Your task to perform on an android device: uninstall "Gboard" Image 0: 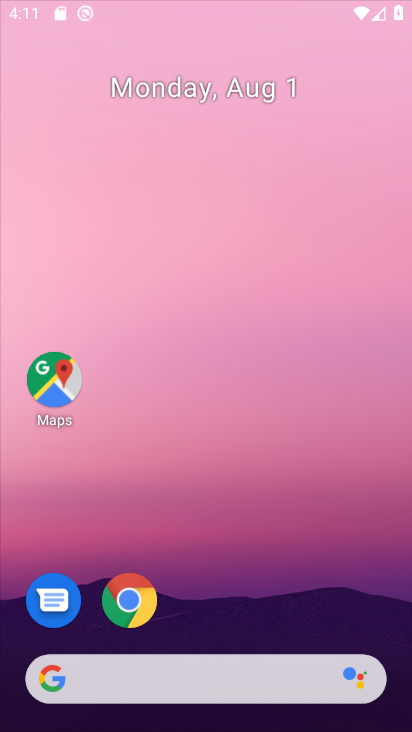
Step 0: drag from (294, 554) to (215, 6)
Your task to perform on an android device: uninstall "Gboard" Image 1: 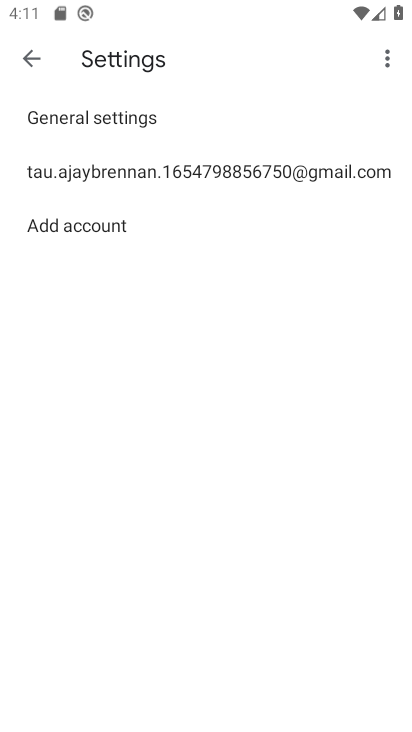
Step 1: press home button
Your task to perform on an android device: uninstall "Gboard" Image 2: 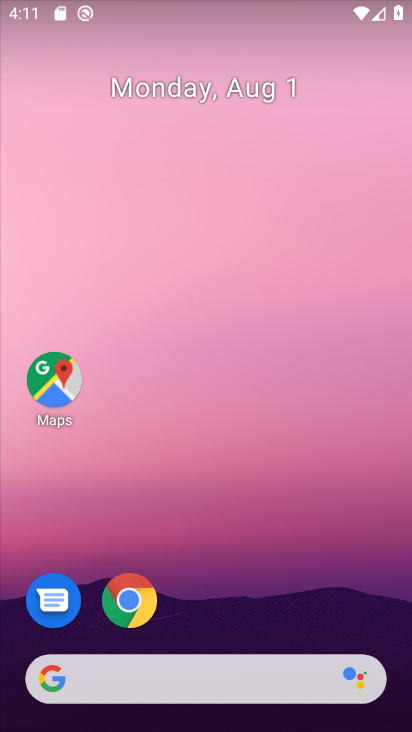
Step 2: drag from (262, 556) to (268, 74)
Your task to perform on an android device: uninstall "Gboard" Image 3: 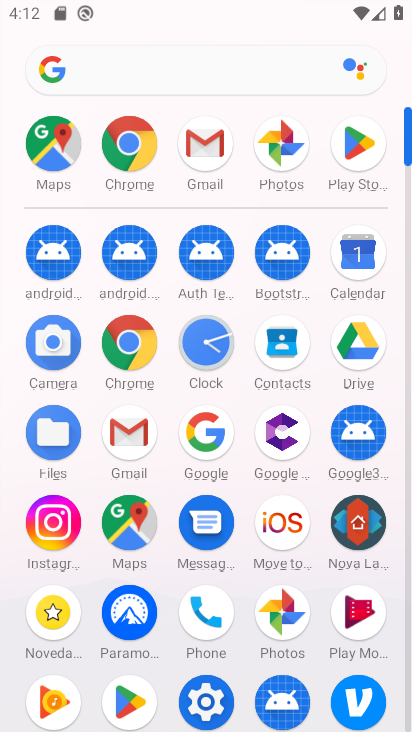
Step 3: click (129, 695)
Your task to perform on an android device: uninstall "Gboard" Image 4: 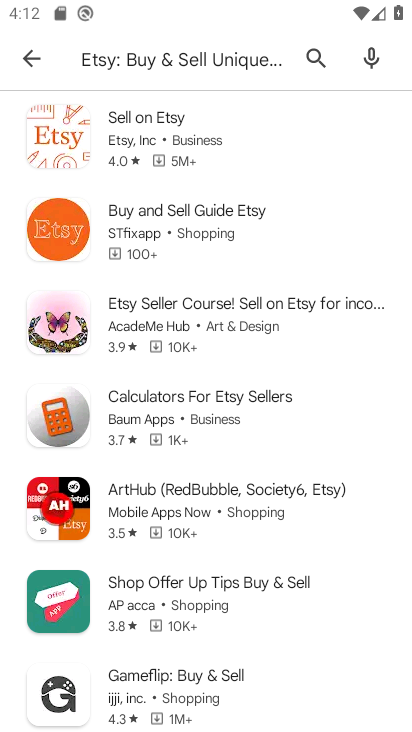
Step 4: click (252, 70)
Your task to perform on an android device: uninstall "Gboard" Image 5: 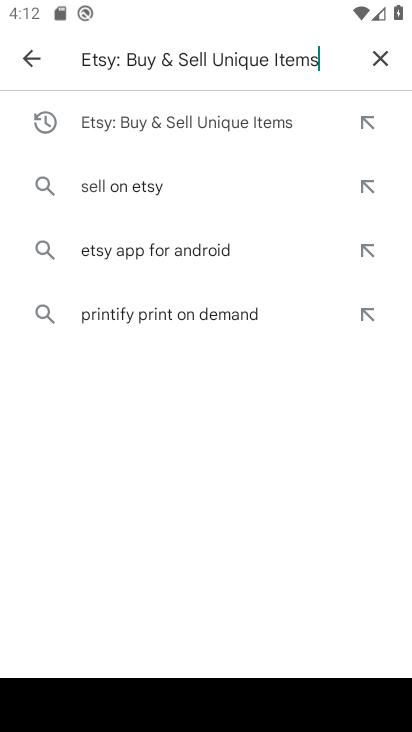
Step 5: click (393, 61)
Your task to perform on an android device: uninstall "Gboard" Image 6: 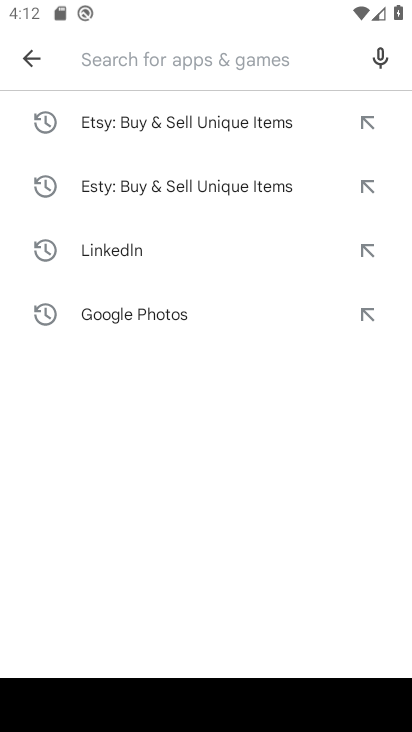
Step 6: type "Gboard"
Your task to perform on an android device: uninstall "Gboard" Image 7: 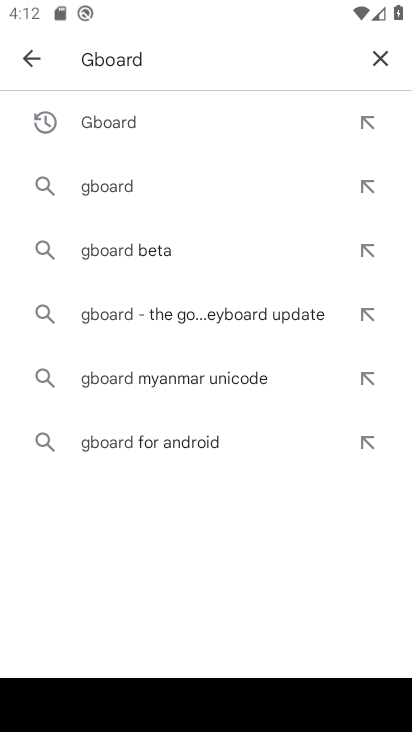
Step 7: press enter
Your task to perform on an android device: uninstall "Gboard" Image 8: 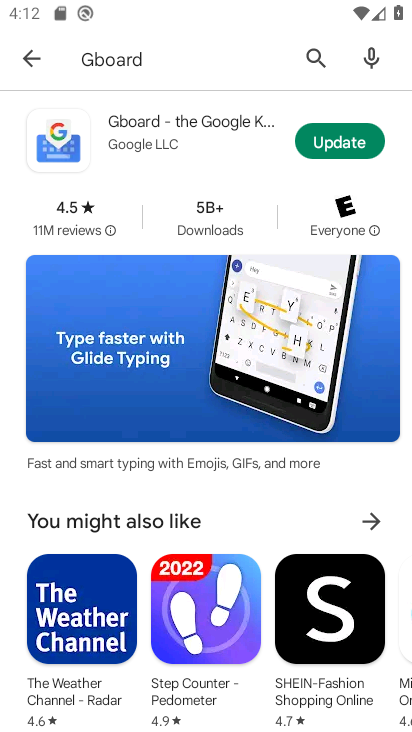
Step 8: click (219, 147)
Your task to perform on an android device: uninstall "Gboard" Image 9: 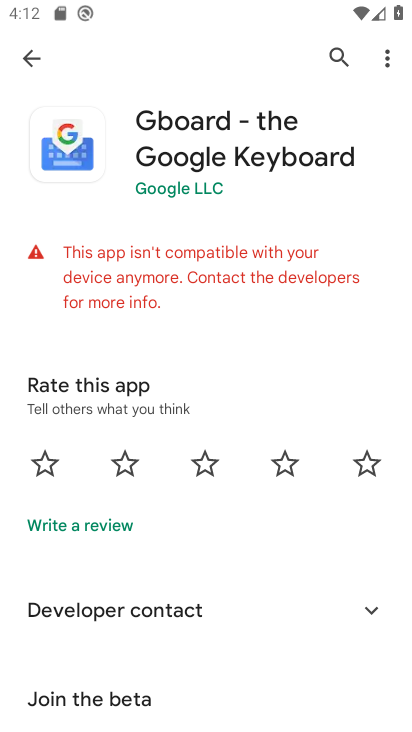
Step 9: task complete